Your task to perform on an android device: Open internet settings Image 0: 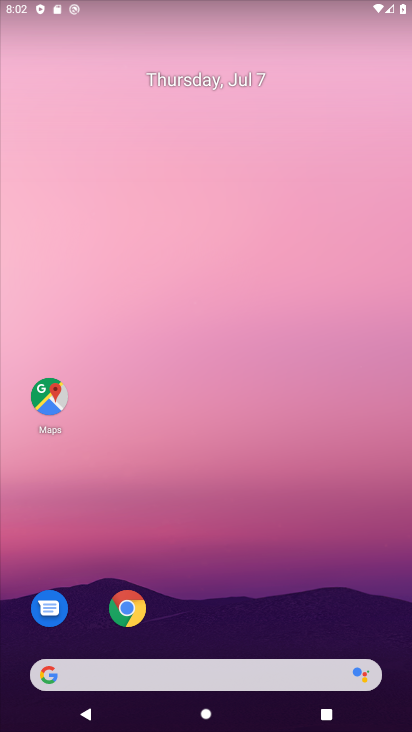
Step 0: drag from (358, 607) to (380, 124)
Your task to perform on an android device: Open internet settings Image 1: 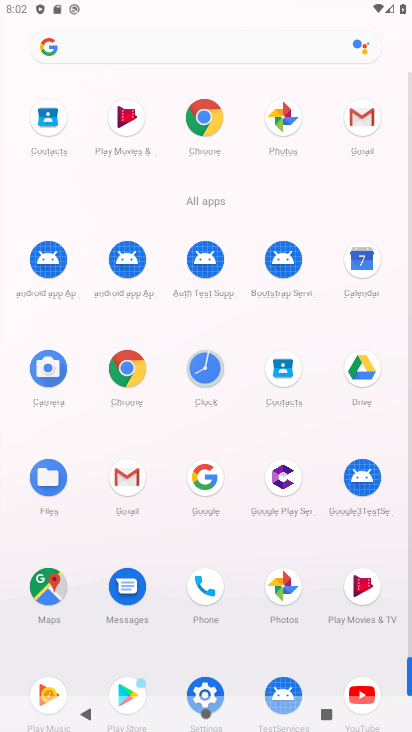
Step 1: drag from (320, 597) to (316, 428)
Your task to perform on an android device: Open internet settings Image 2: 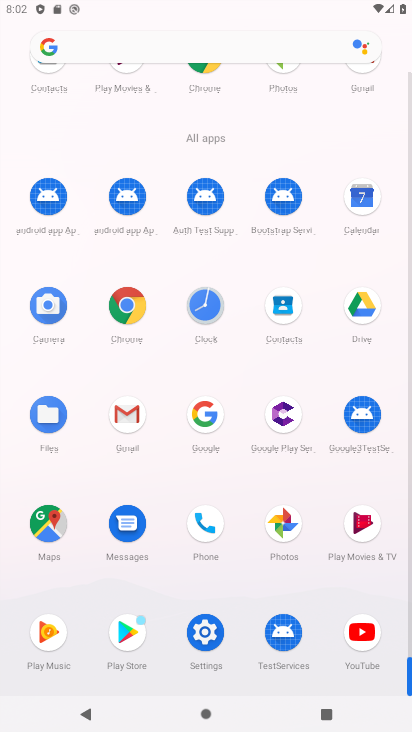
Step 2: click (207, 640)
Your task to perform on an android device: Open internet settings Image 3: 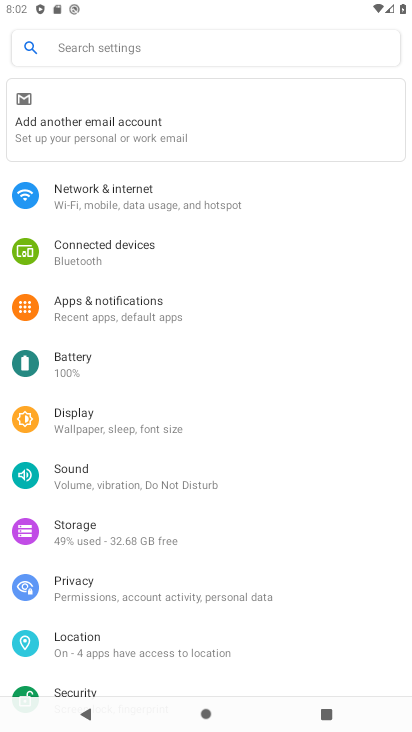
Step 3: click (183, 192)
Your task to perform on an android device: Open internet settings Image 4: 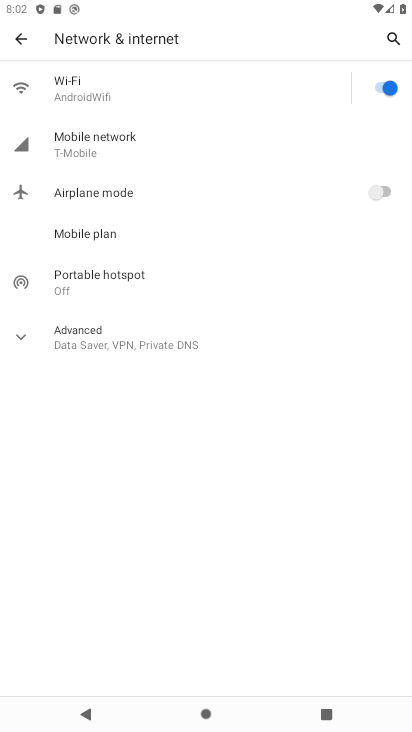
Step 4: task complete